Your task to perform on an android device: see tabs open on other devices in the chrome app Image 0: 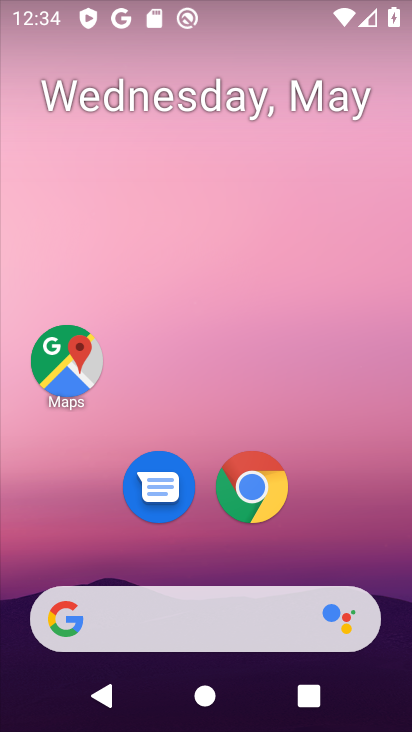
Step 0: click (252, 496)
Your task to perform on an android device: see tabs open on other devices in the chrome app Image 1: 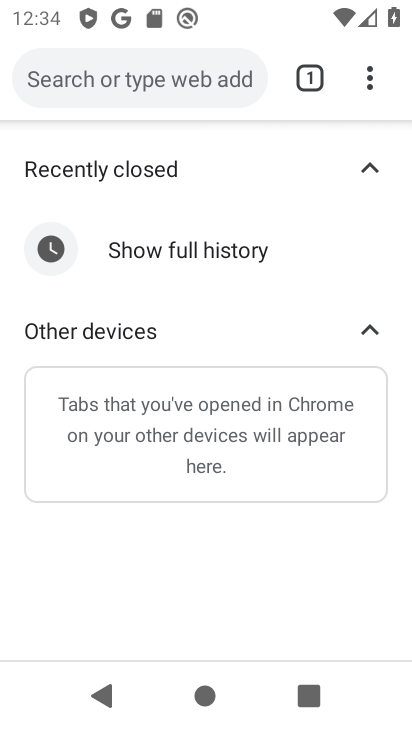
Step 1: task complete